Your task to perform on an android device: Check the news Image 0: 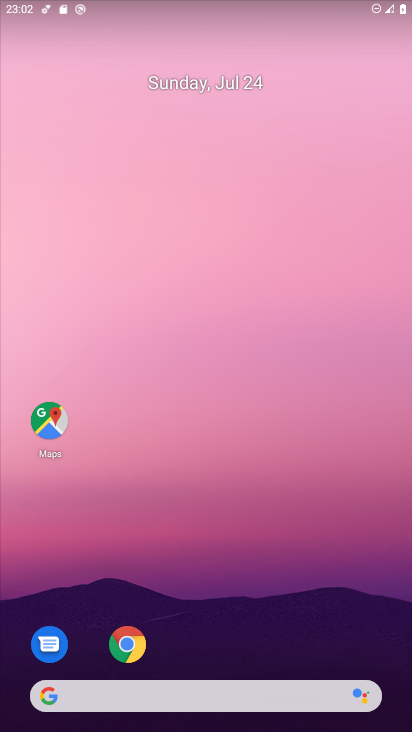
Step 0: drag from (35, 290) to (396, 288)
Your task to perform on an android device: Check the news Image 1: 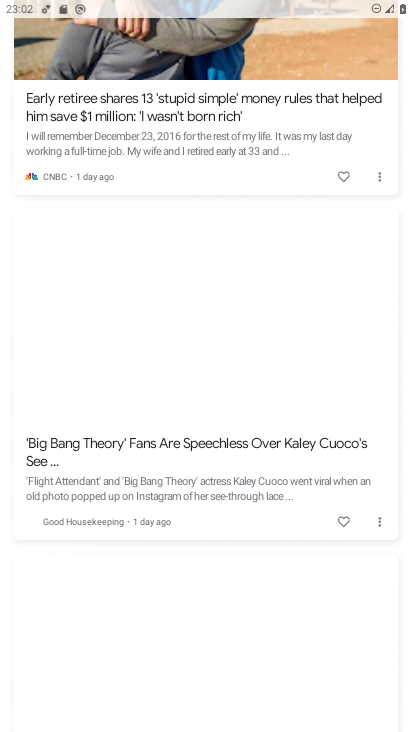
Step 1: task complete